Your task to perform on an android device: What's on my calendar tomorrow? Image 0: 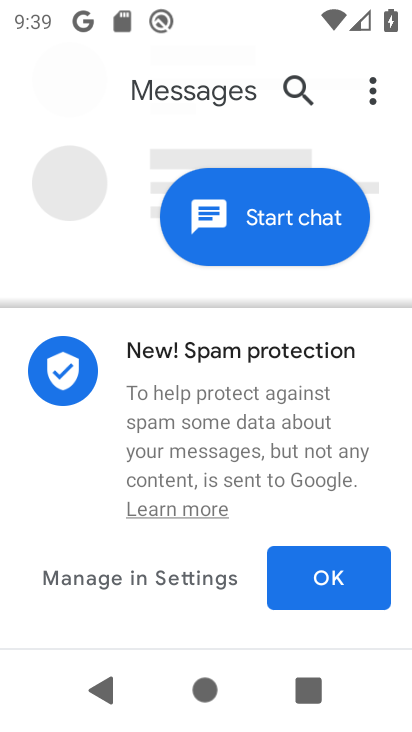
Step 0: press home button
Your task to perform on an android device: What's on my calendar tomorrow? Image 1: 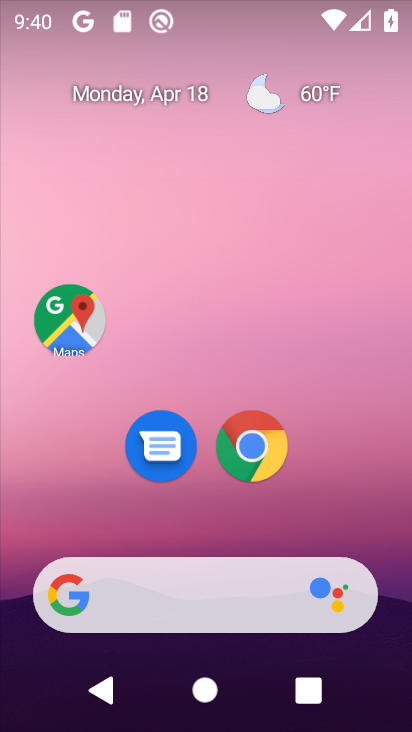
Step 1: drag from (371, 392) to (364, 97)
Your task to perform on an android device: What's on my calendar tomorrow? Image 2: 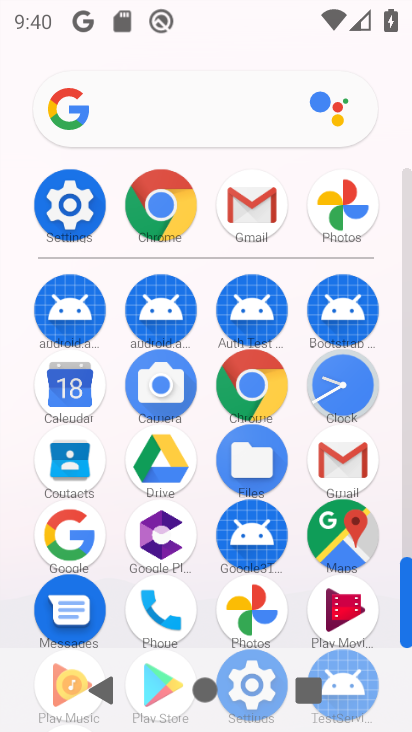
Step 2: click (73, 404)
Your task to perform on an android device: What's on my calendar tomorrow? Image 3: 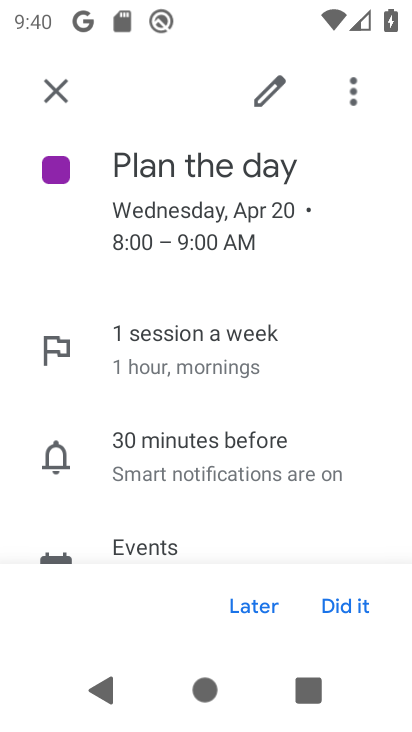
Step 3: click (57, 88)
Your task to perform on an android device: What's on my calendar tomorrow? Image 4: 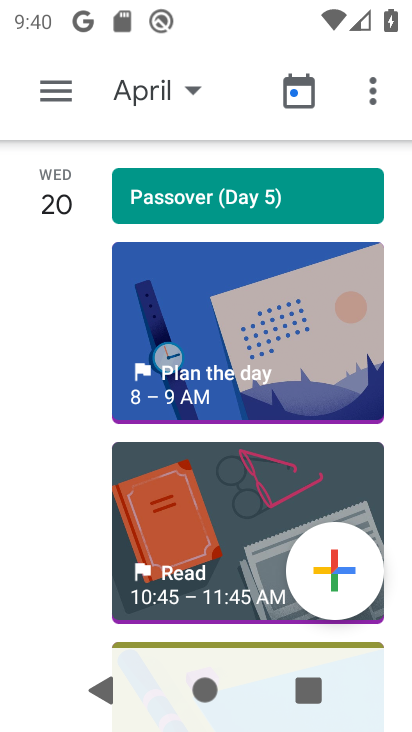
Step 4: click (186, 89)
Your task to perform on an android device: What's on my calendar tomorrow? Image 5: 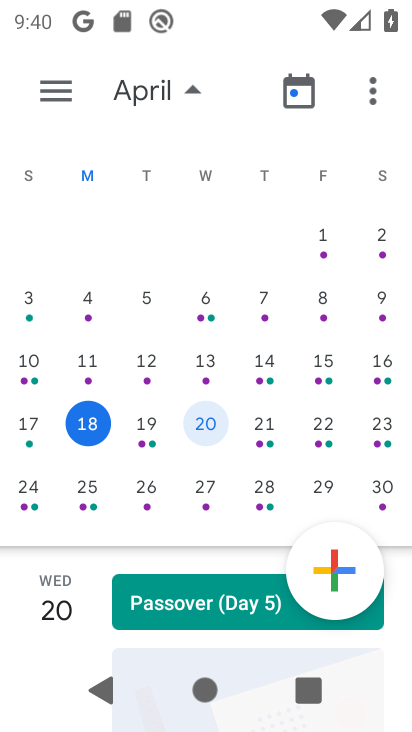
Step 5: click (210, 426)
Your task to perform on an android device: What's on my calendar tomorrow? Image 6: 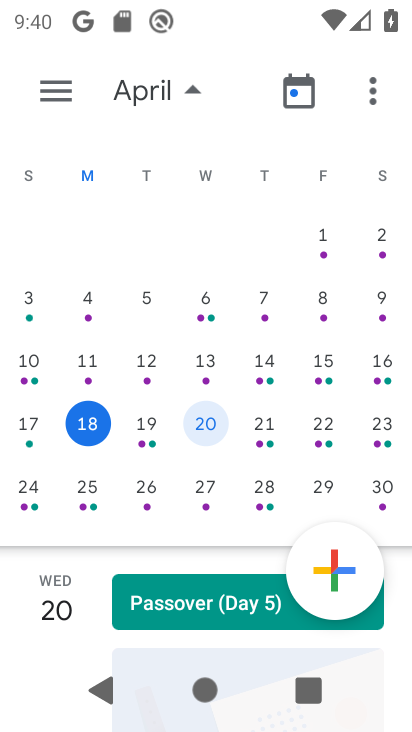
Step 6: task complete